Your task to perform on an android device: Open the stopwatch Image 0: 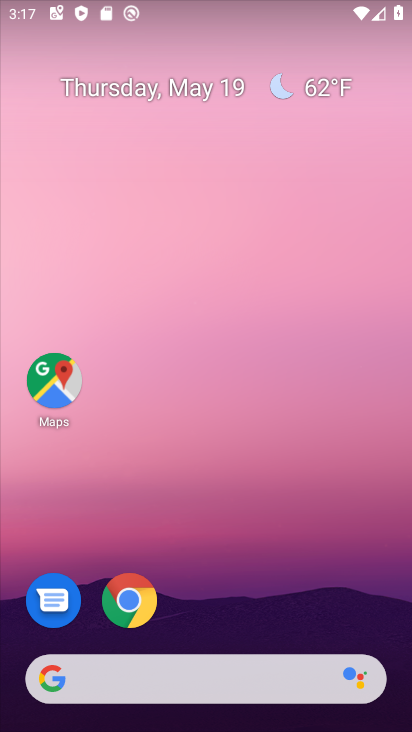
Step 0: drag from (0, 0) to (338, 144)
Your task to perform on an android device: Open the stopwatch Image 1: 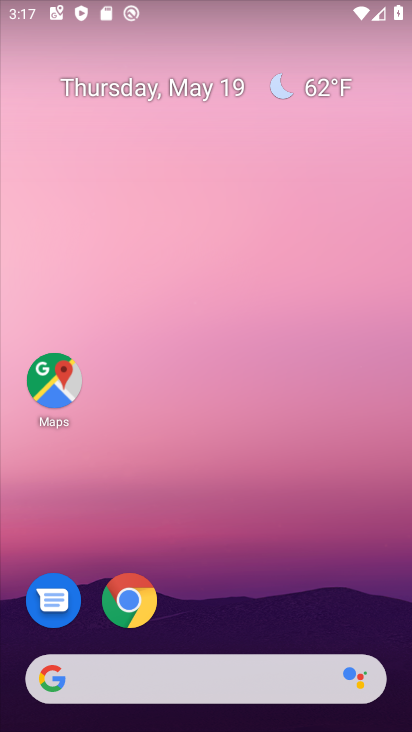
Step 1: drag from (44, 547) to (279, 194)
Your task to perform on an android device: Open the stopwatch Image 2: 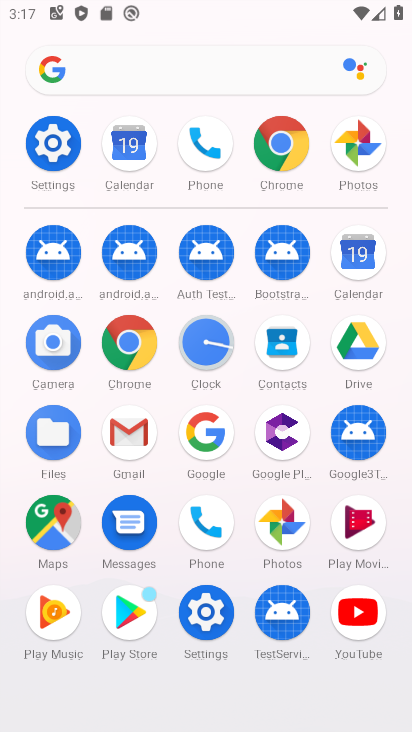
Step 2: click (221, 337)
Your task to perform on an android device: Open the stopwatch Image 3: 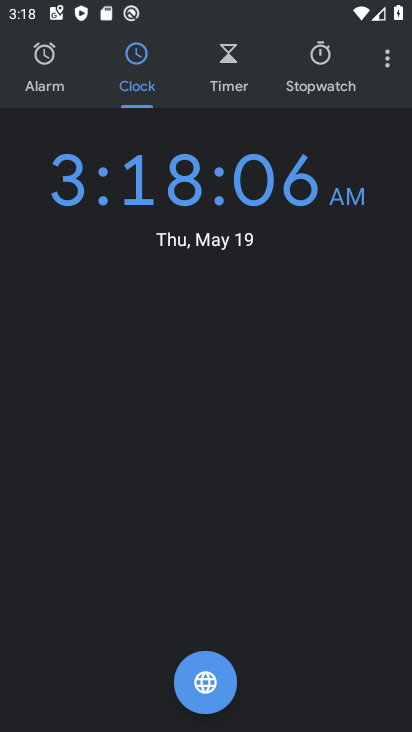
Step 3: click (311, 51)
Your task to perform on an android device: Open the stopwatch Image 4: 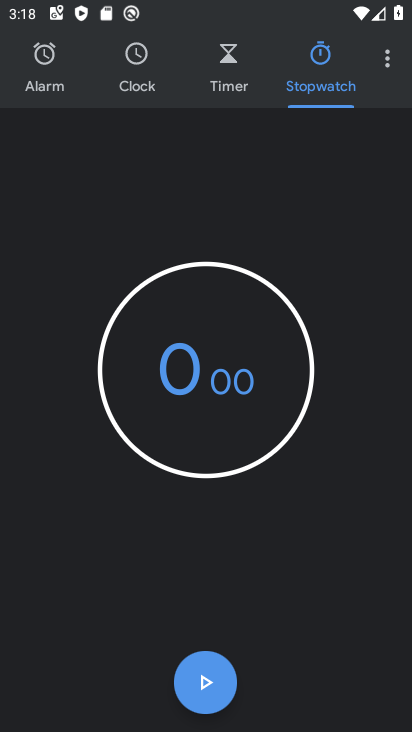
Step 4: click (195, 688)
Your task to perform on an android device: Open the stopwatch Image 5: 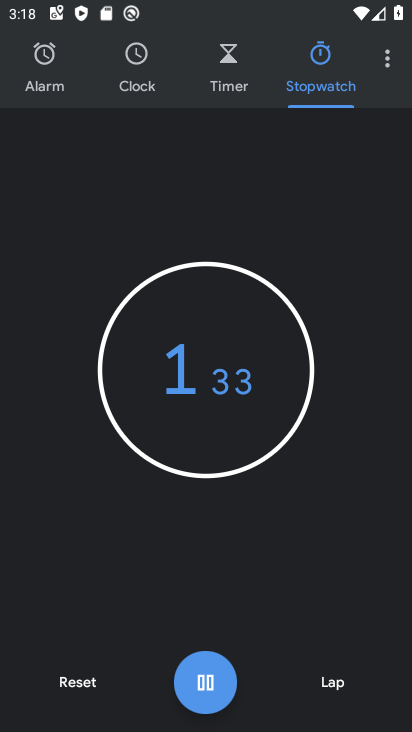
Step 5: task complete